Your task to perform on an android device: Open Reddit.com Image 0: 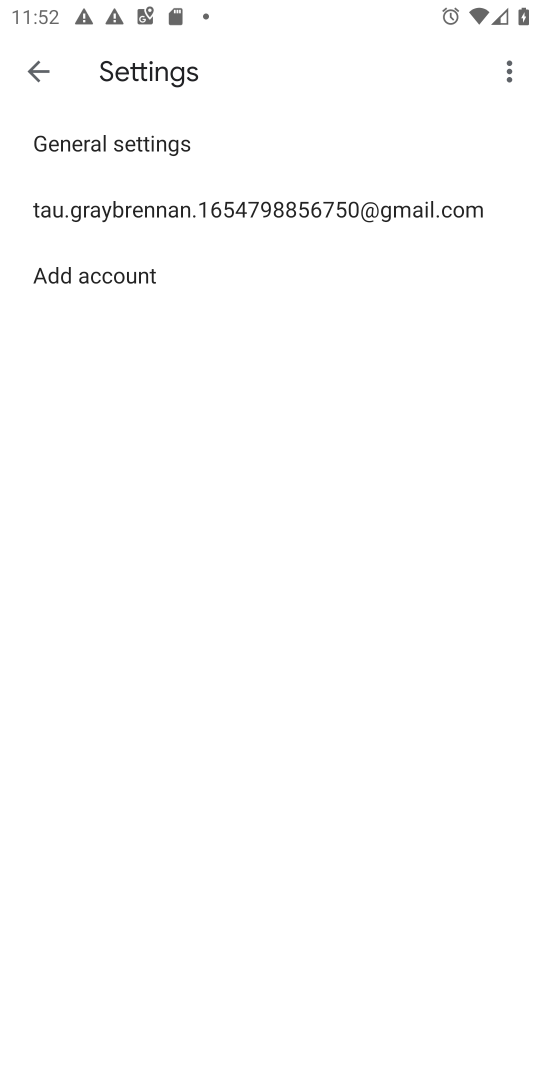
Step 0: press home button
Your task to perform on an android device: Open Reddit.com Image 1: 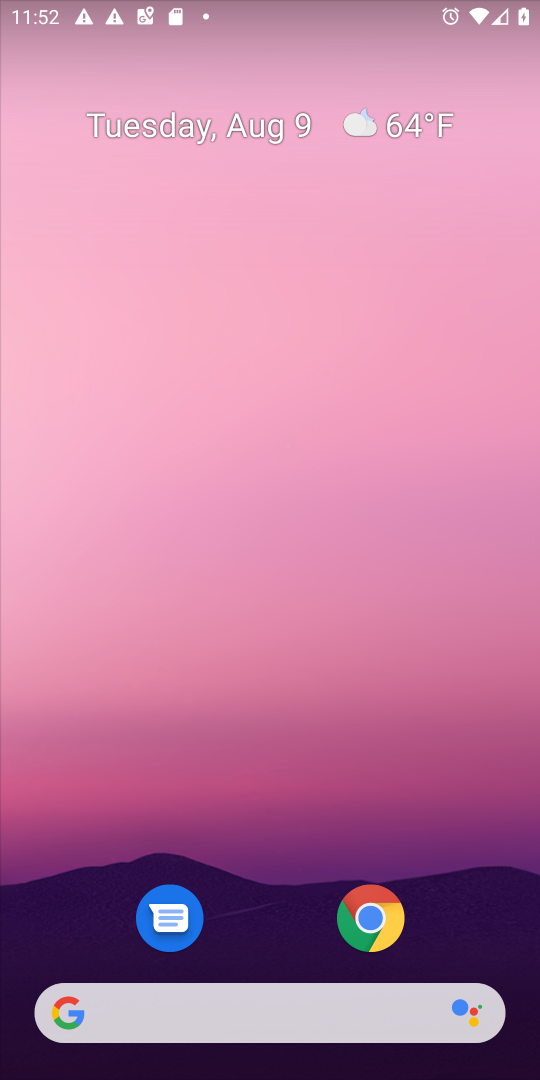
Step 1: drag from (214, 820) to (273, 43)
Your task to perform on an android device: Open Reddit.com Image 2: 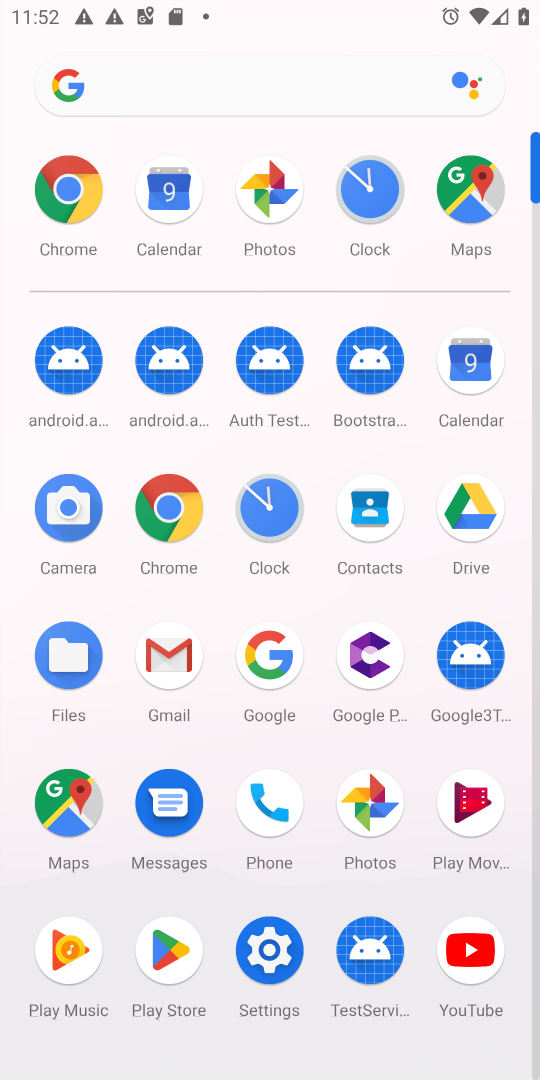
Step 2: click (172, 507)
Your task to perform on an android device: Open Reddit.com Image 3: 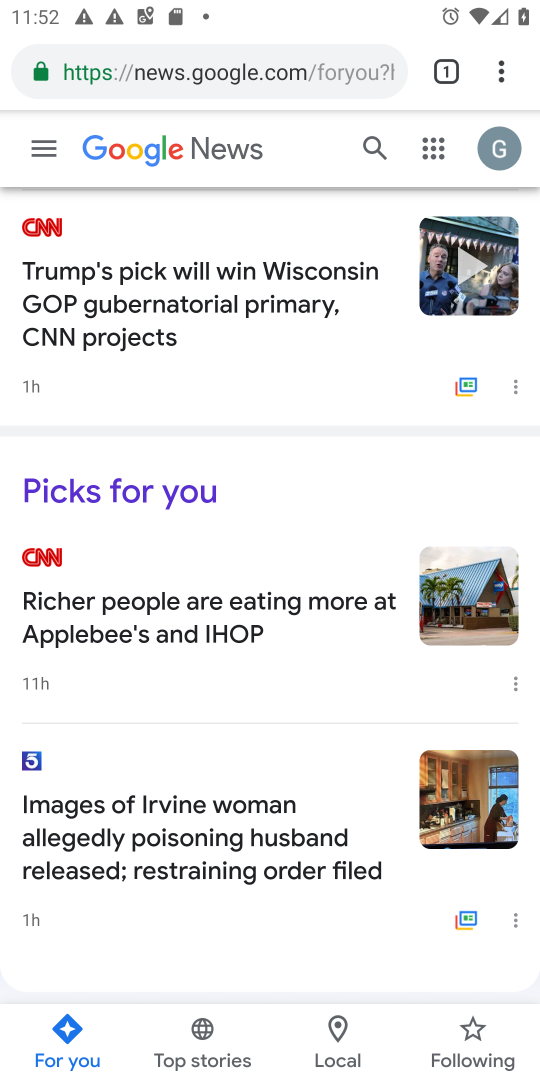
Step 3: click (277, 69)
Your task to perform on an android device: Open Reddit.com Image 4: 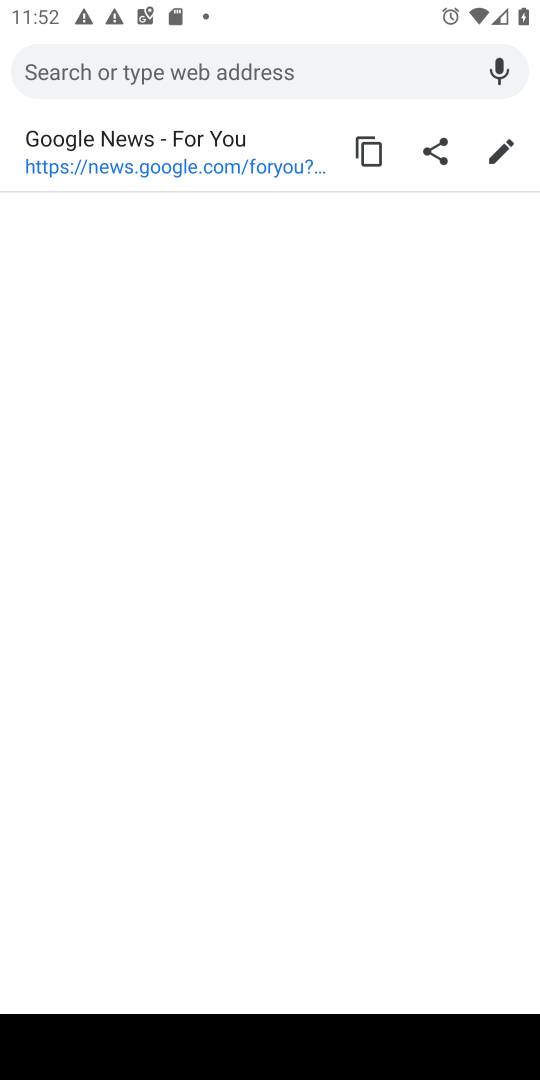
Step 4: type ""
Your task to perform on an android device: Open Reddit.com Image 5: 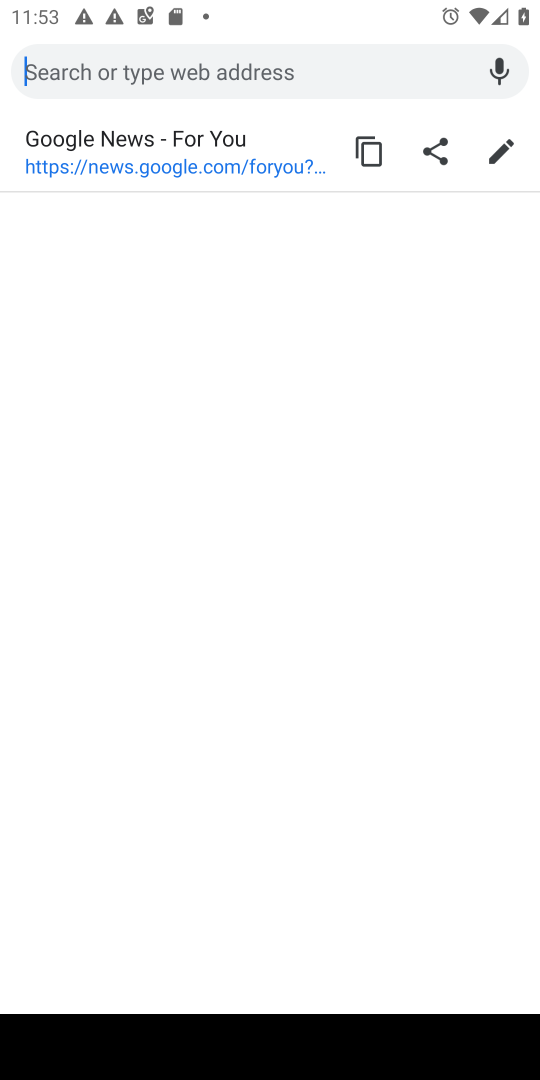
Step 5: type "reddit.com"
Your task to perform on an android device: Open Reddit.com Image 6: 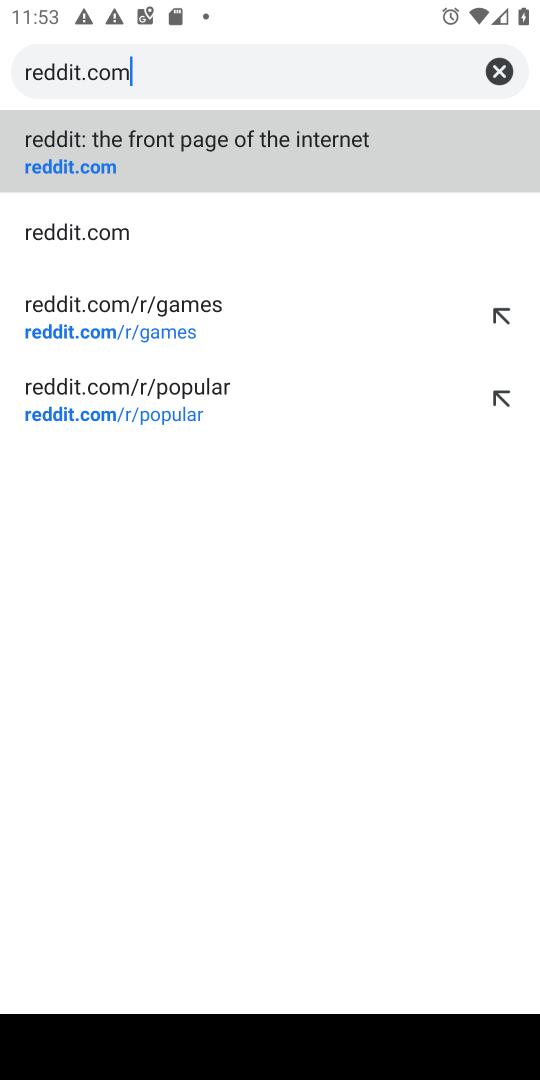
Step 6: click (59, 150)
Your task to perform on an android device: Open Reddit.com Image 7: 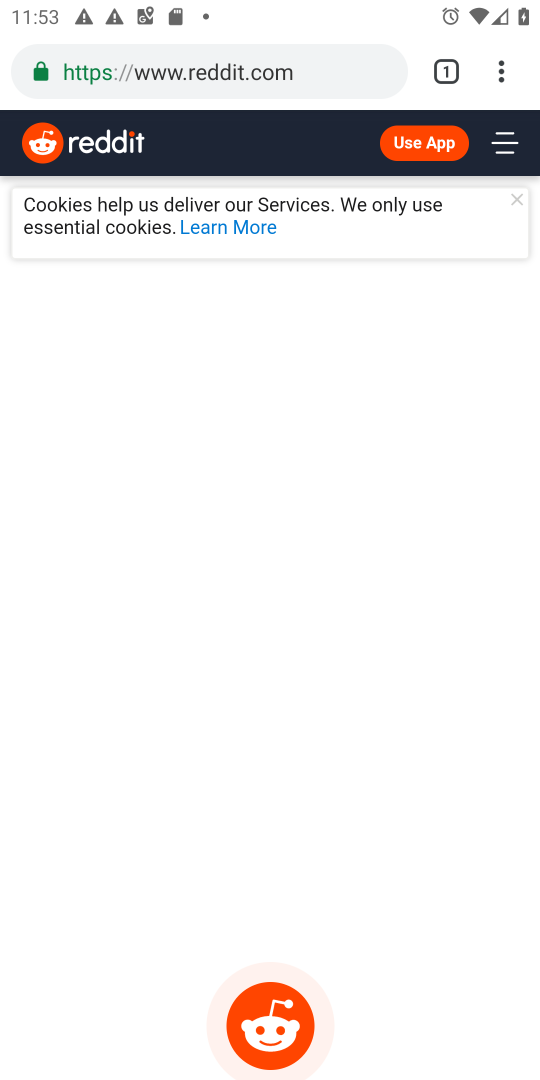
Step 7: task complete